Your task to perform on an android device: Open calendar and show me the third week of next month Image 0: 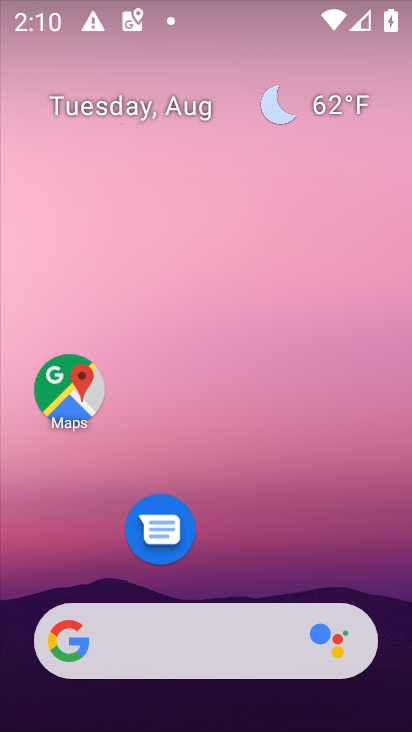
Step 0: drag from (287, 595) to (263, 289)
Your task to perform on an android device: Open calendar and show me the third week of next month Image 1: 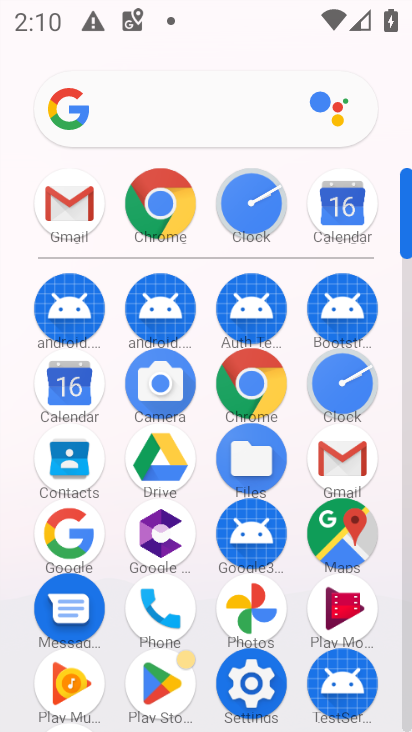
Step 1: click (328, 220)
Your task to perform on an android device: Open calendar and show me the third week of next month Image 2: 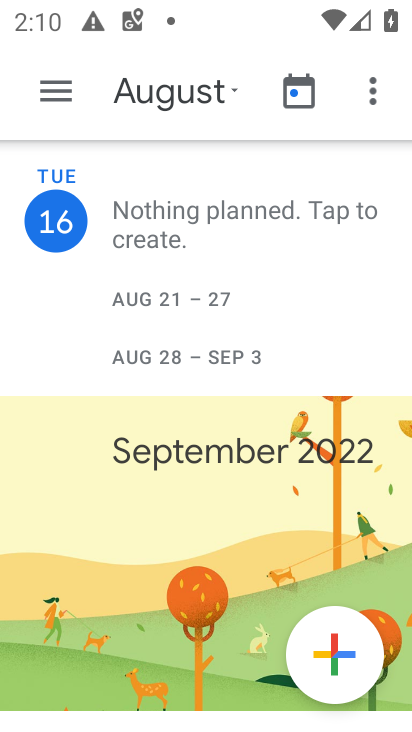
Step 2: task complete